Your task to perform on an android device: Open Amazon Image 0: 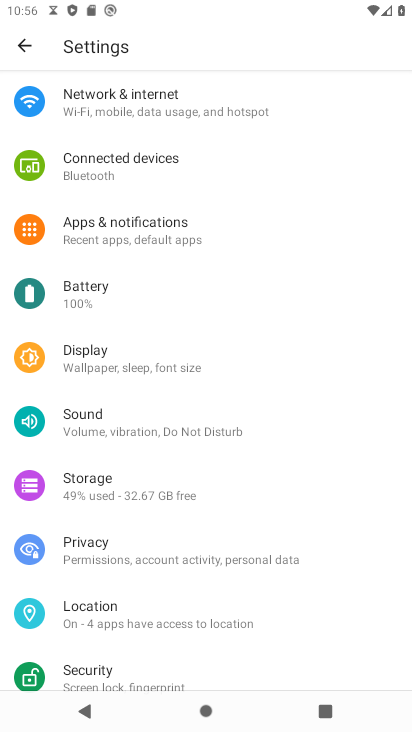
Step 0: drag from (196, 577) to (256, 162)
Your task to perform on an android device: Open Amazon Image 1: 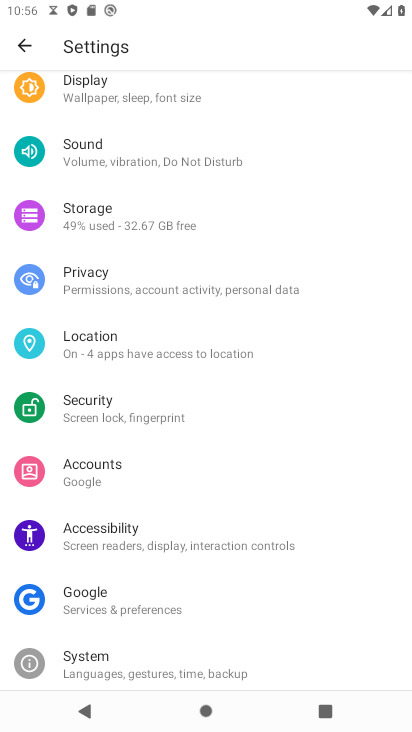
Step 1: drag from (134, 599) to (211, 146)
Your task to perform on an android device: Open Amazon Image 2: 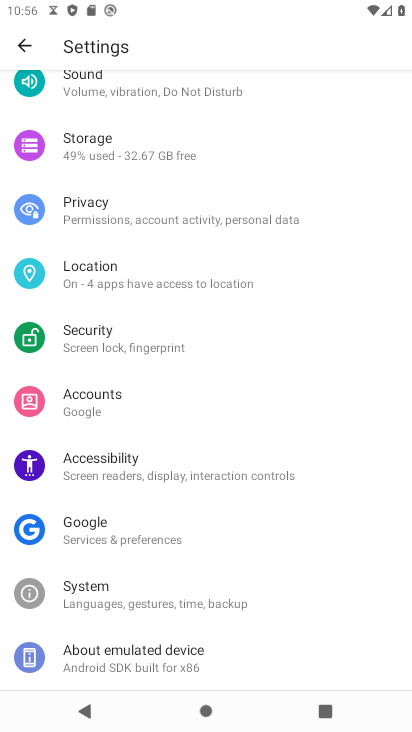
Step 2: press home button
Your task to perform on an android device: Open Amazon Image 3: 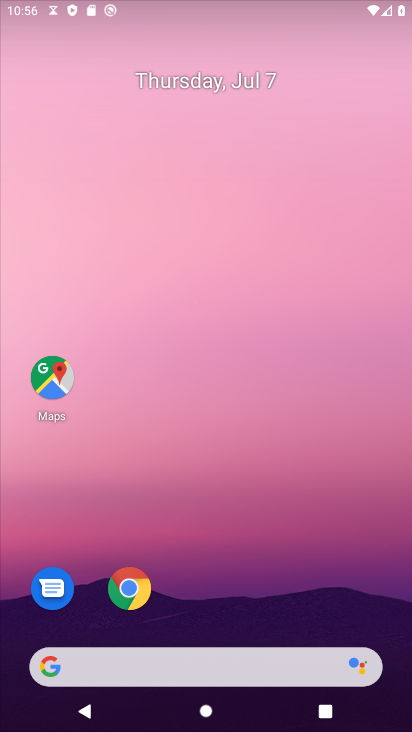
Step 3: drag from (164, 511) to (248, 7)
Your task to perform on an android device: Open Amazon Image 4: 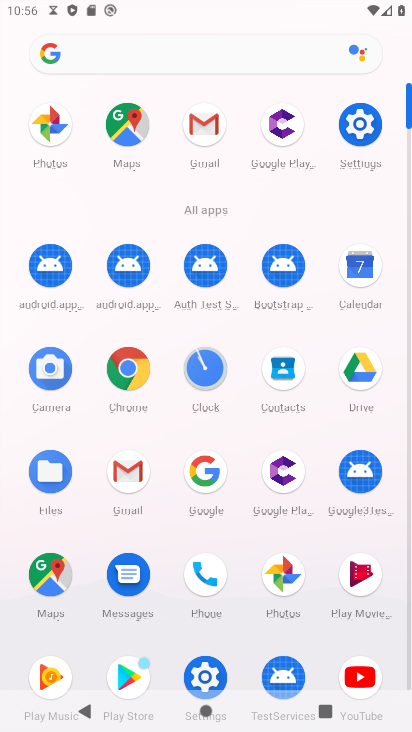
Step 4: click (129, 366)
Your task to perform on an android device: Open Amazon Image 5: 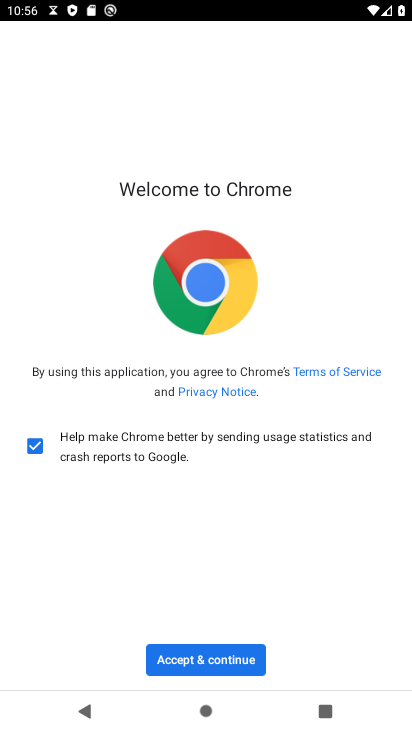
Step 5: drag from (217, 581) to (283, 235)
Your task to perform on an android device: Open Amazon Image 6: 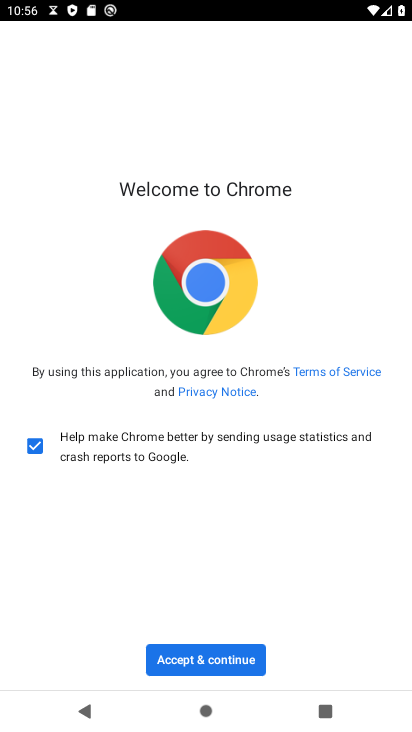
Step 6: click (221, 667)
Your task to perform on an android device: Open Amazon Image 7: 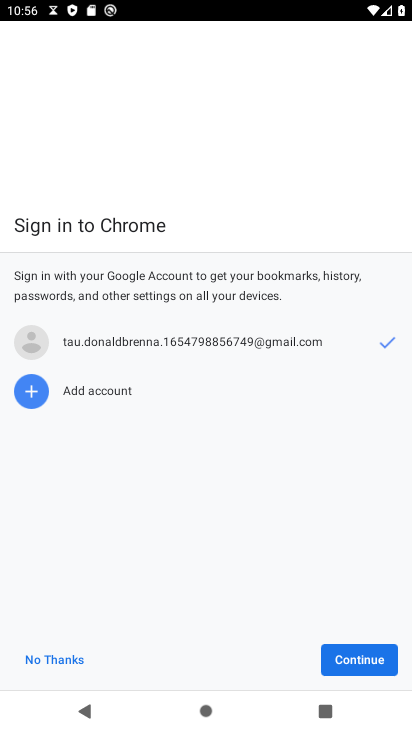
Step 7: click (388, 678)
Your task to perform on an android device: Open Amazon Image 8: 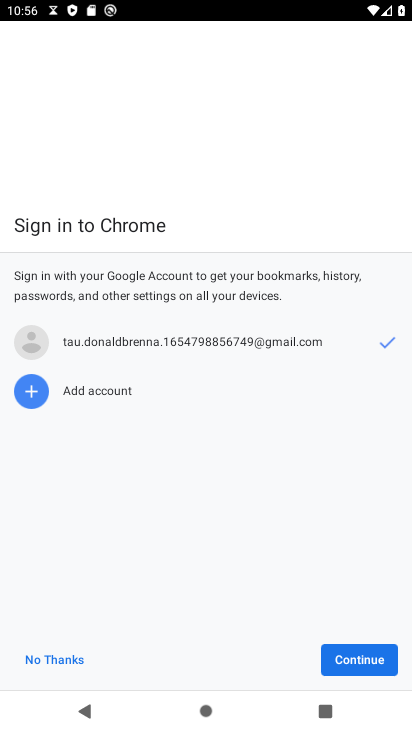
Step 8: click (384, 669)
Your task to perform on an android device: Open Amazon Image 9: 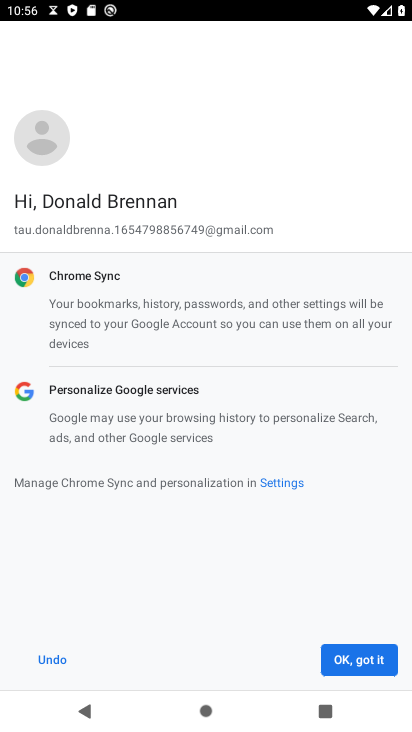
Step 9: click (338, 673)
Your task to perform on an android device: Open Amazon Image 10: 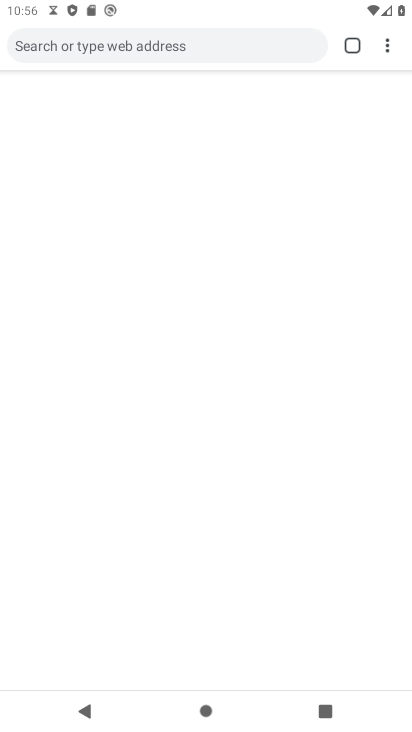
Step 10: click (284, 168)
Your task to perform on an android device: Open Amazon Image 11: 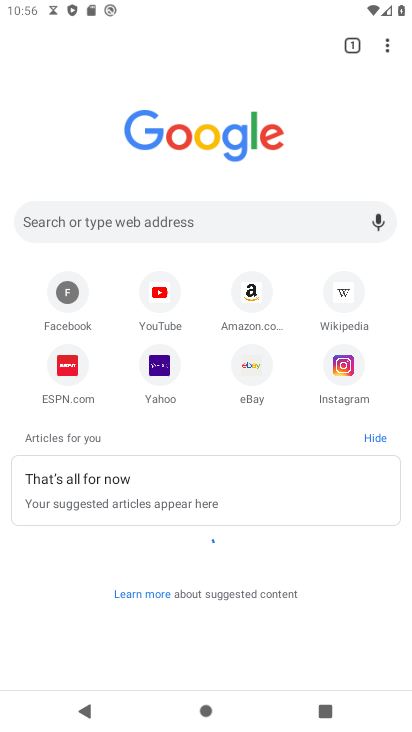
Step 11: click (275, 304)
Your task to perform on an android device: Open Amazon Image 12: 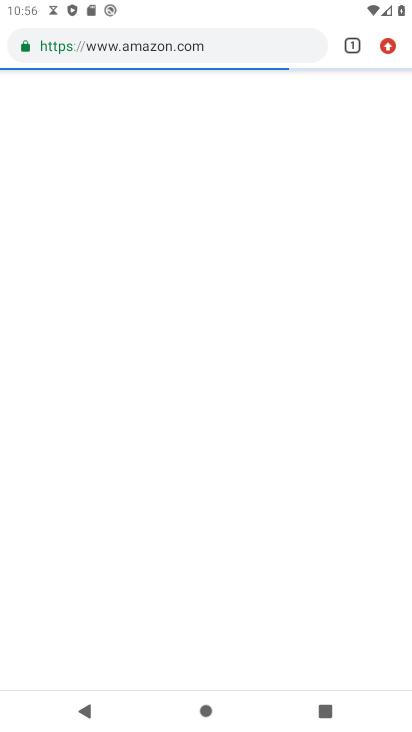
Step 12: task complete